Your task to perform on an android device: change the clock style Image 0: 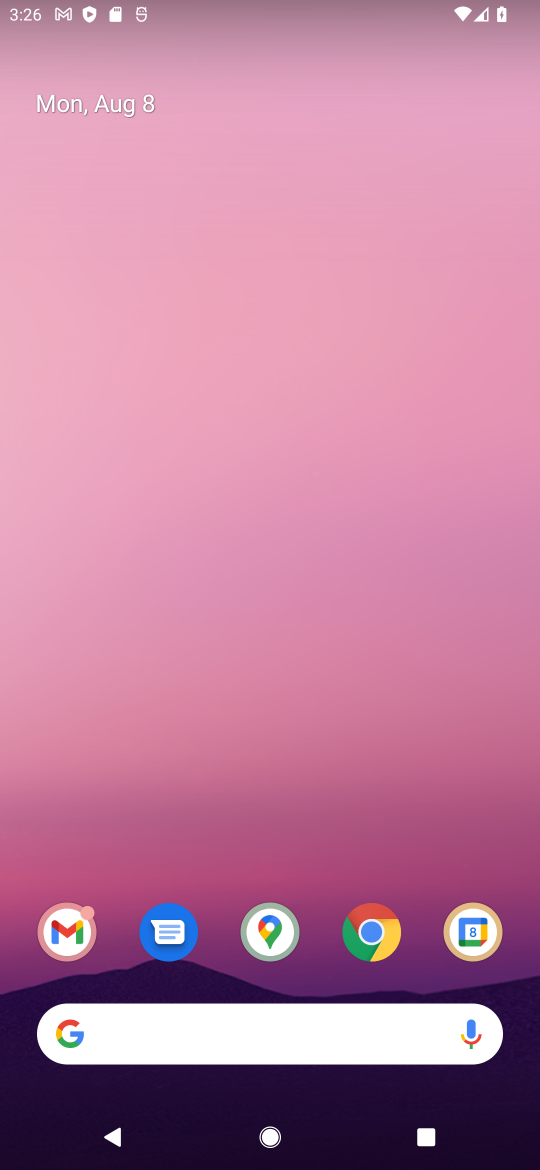
Step 0: drag from (237, 591) to (196, 11)
Your task to perform on an android device: change the clock style Image 1: 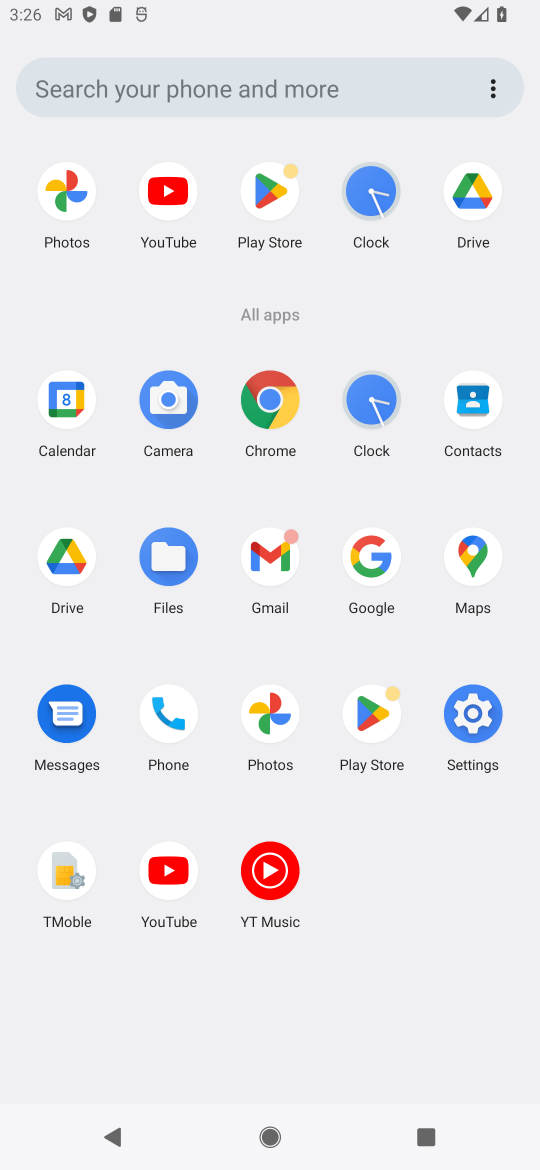
Step 1: click (380, 411)
Your task to perform on an android device: change the clock style Image 2: 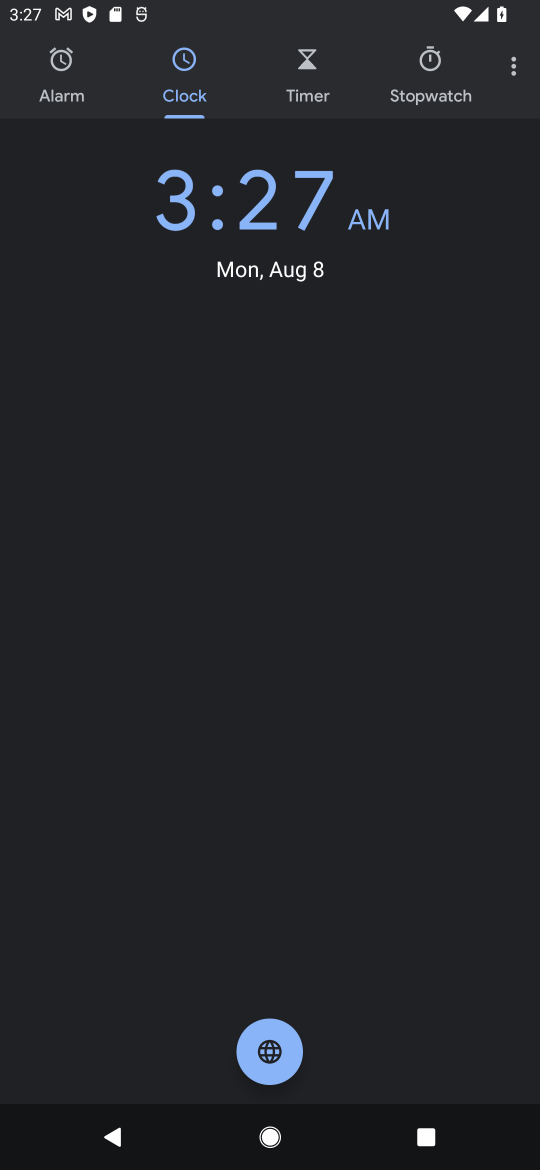
Step 2: click (516, 54)
Your task to perform on an android device: change the clock style Image 3: 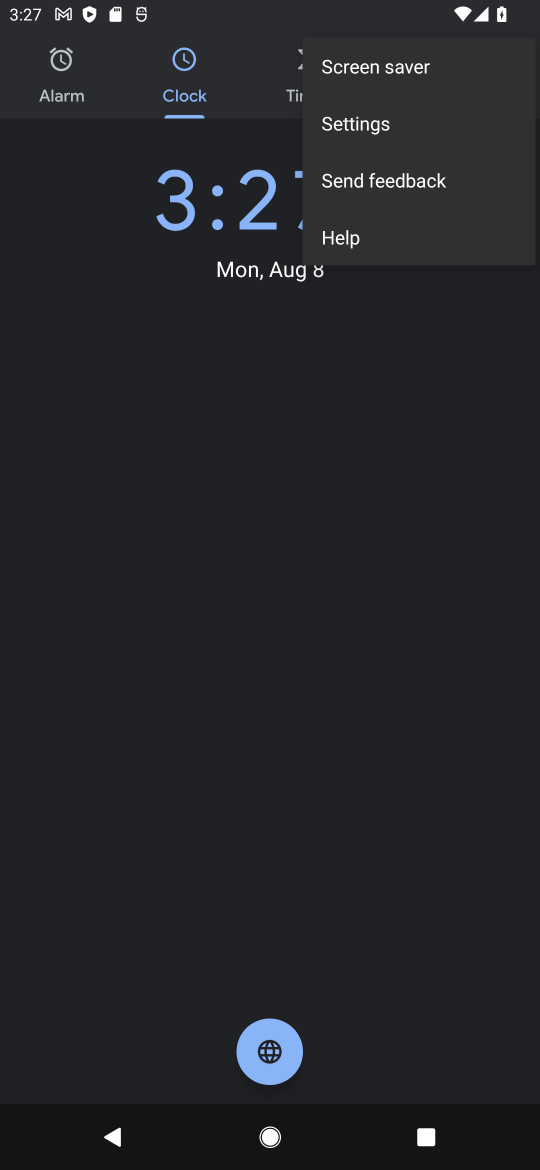
Step 3: click (409, 115)
Your task to perform on an android device: change the clock style Image 4: 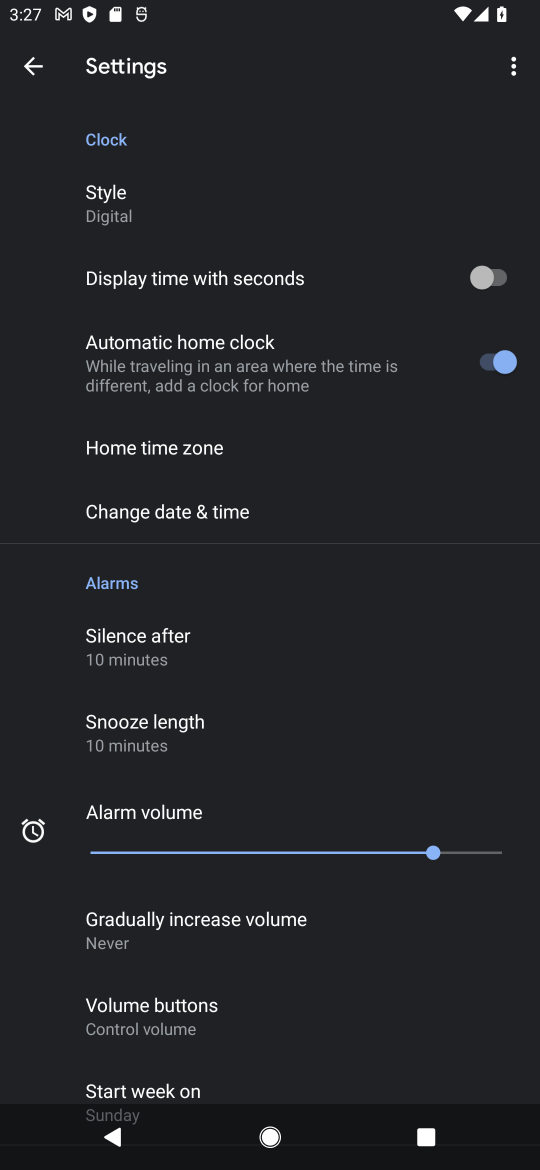
Step 4: click (111, 202)
Your task to perform on an android device: change the clock style Image 5: 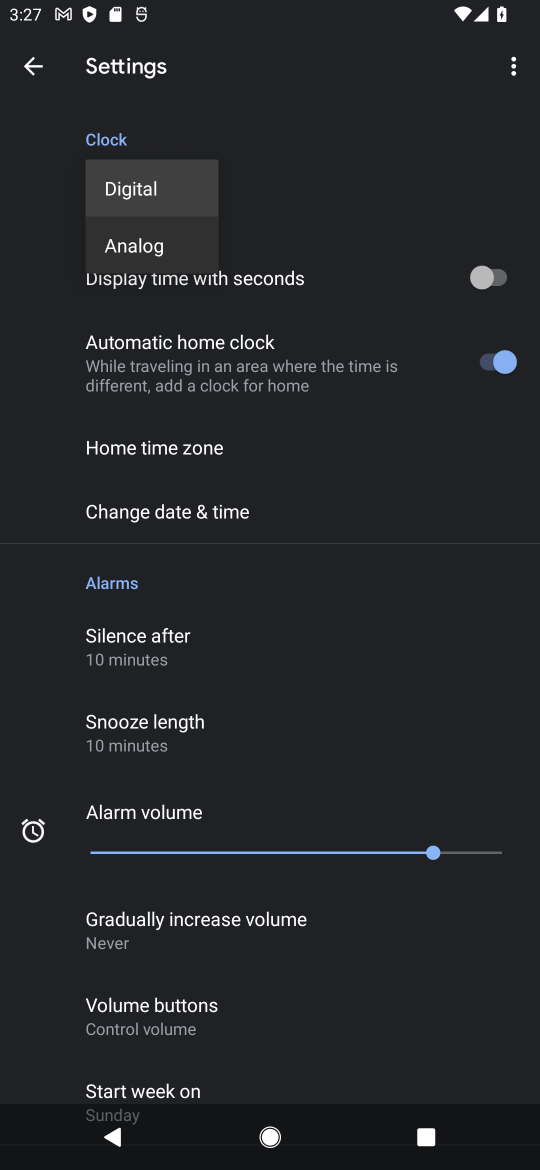
Step 5: click (181, 254)
Your task to perform on an android device: change the clock style Image 6: 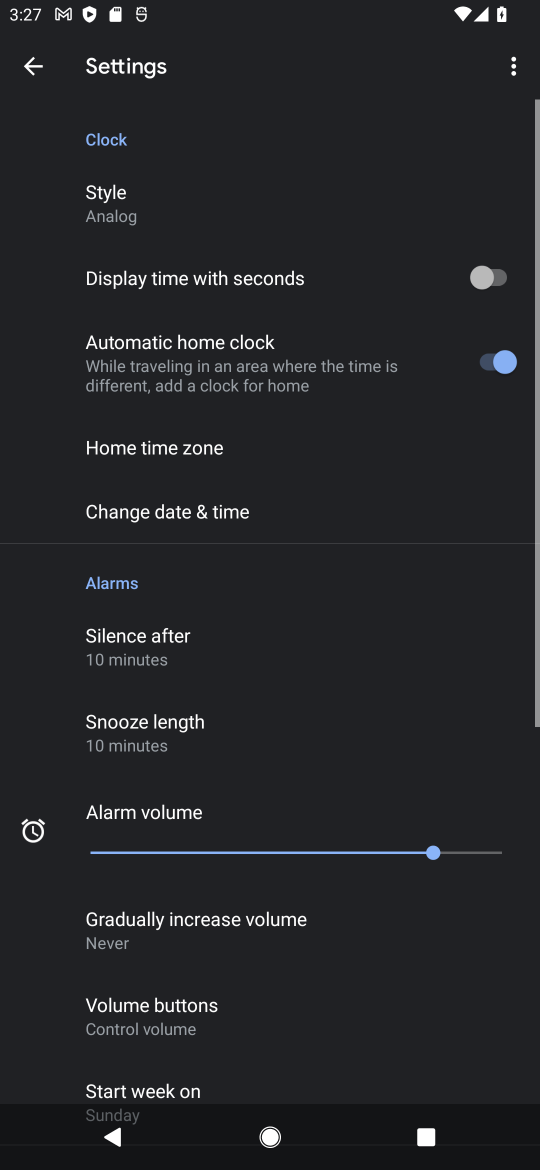
Step 6: task complete